Your task to perform on an android device: Open wifi settings Image 0: 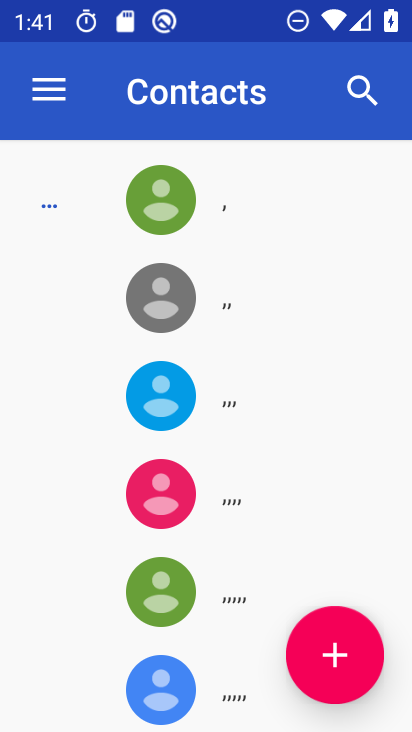
Step 0: press home button
Your task to perform on an android device: Open wifi settings Image 1: 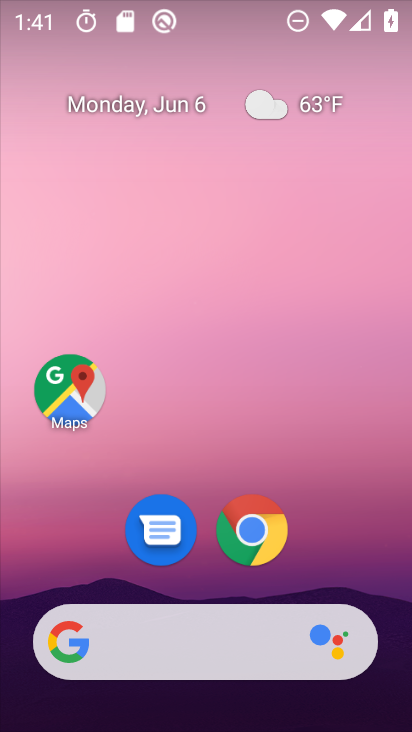
Step 1: drag from (327, 551) to (265, 174)
Your task to perform on an android device: Open wifi settings Image 2: 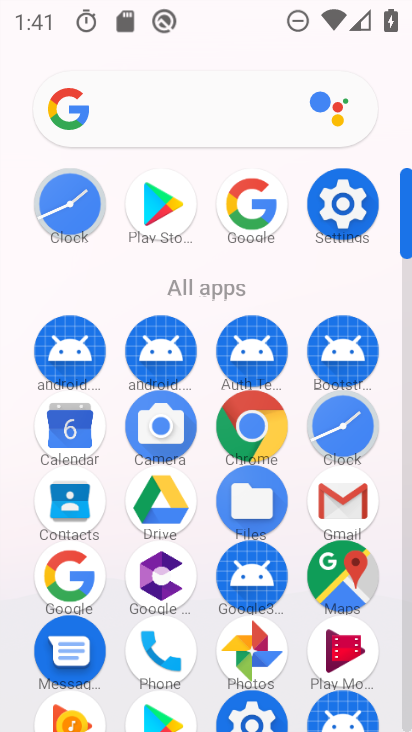
Step 2: click (345, 200)
Your task to perform on an android device: Open wifi settings Image 3: 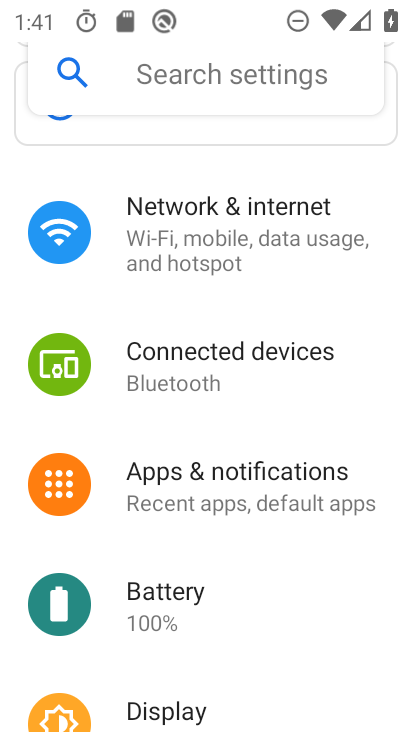
Step 3: click (190, 223)
Your task to perform on an android device: Open wifi settings Image 4: 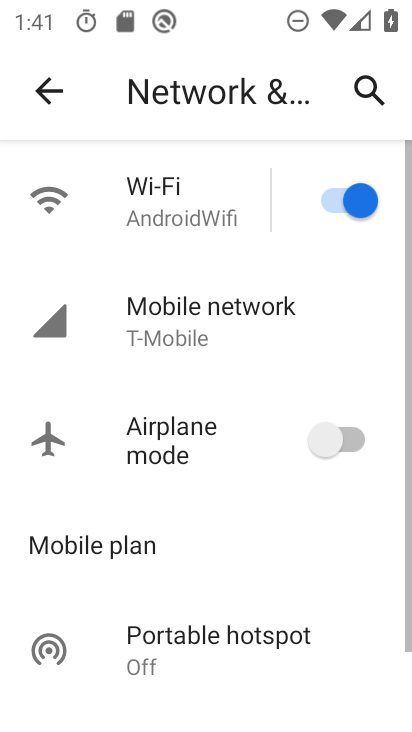
Step 4: click (177, 215)
Your task to perform on an android device: Open wifi settings Image 5: 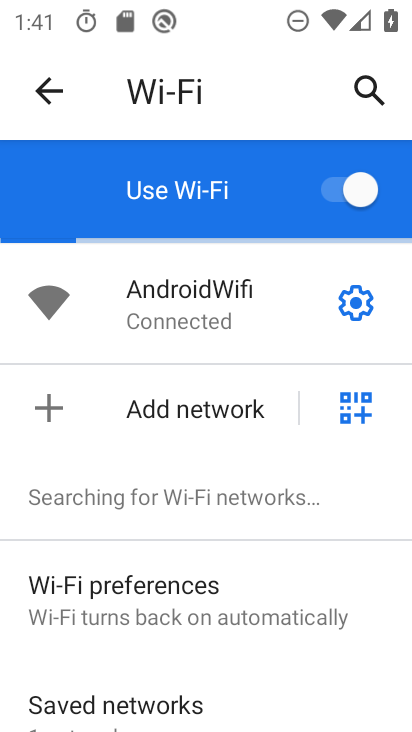
Step 5: task complete